Your task to perform on an android device: open a new tab in the chrome app Image 0: 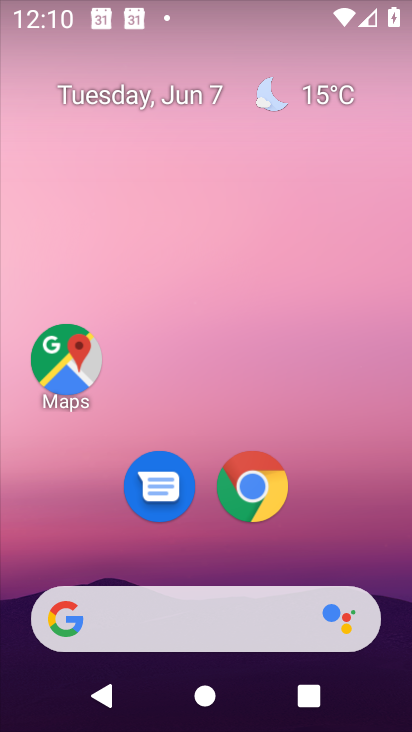
Step 0: click (255, 490)
Your task to perform on an android device: open a new tab in the chrome app Image 1: 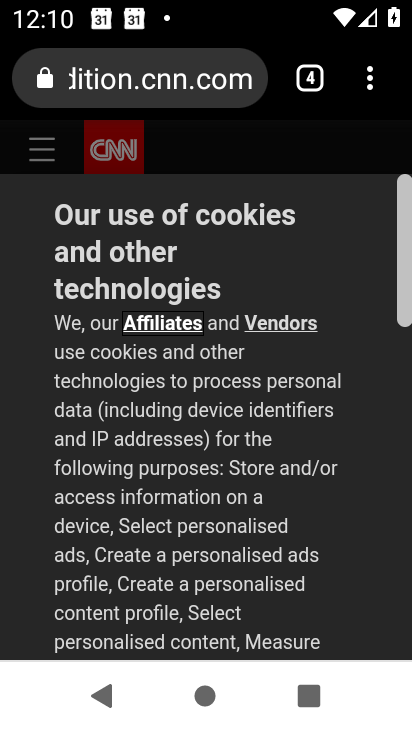
Step 1: click (308, 80)
Your task to perform on an android device: open a new tab in the chrome app Image 2: 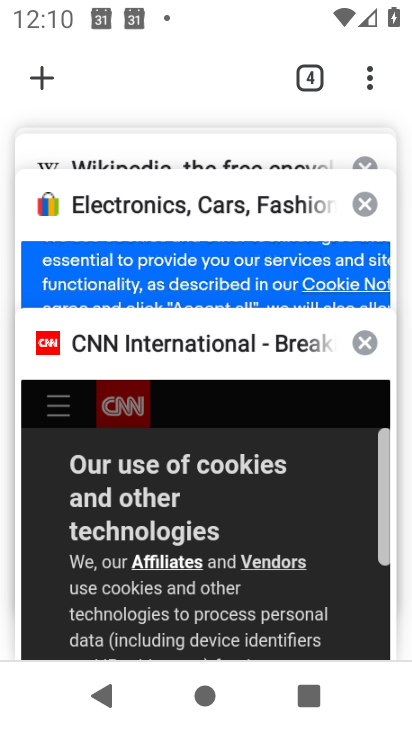
Step 2: click (33, 67)
Your task to perform on an android device: open a new tab in the chrome app Image 3: 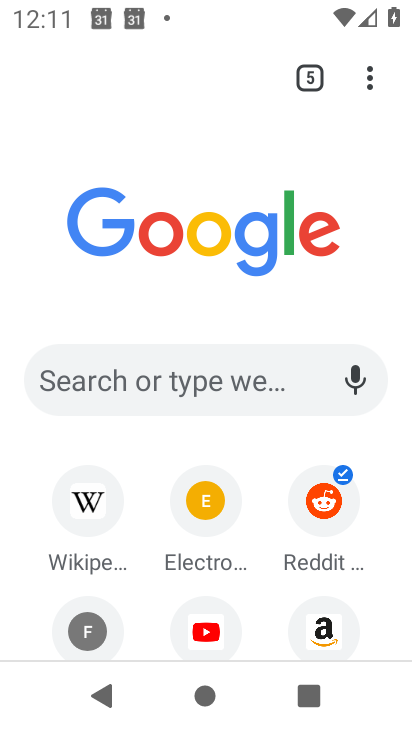
Step 3: task complete